Your task to perform on an android device: Show me popular videos on Youtube Image 0: 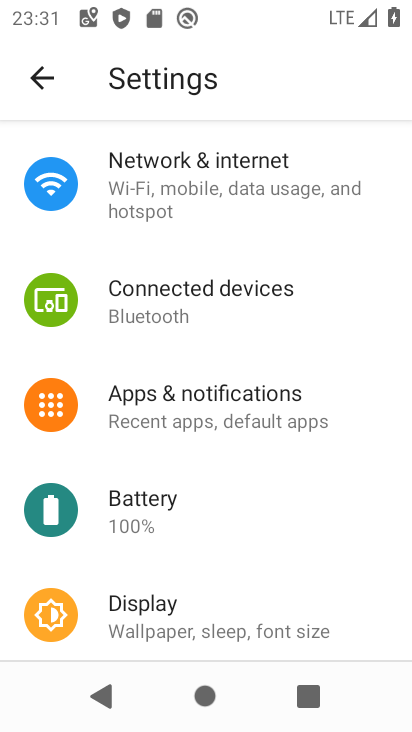
Step 0: press back button
Your task to perform on an android device: Show me popular videos on Youtube Image 1: 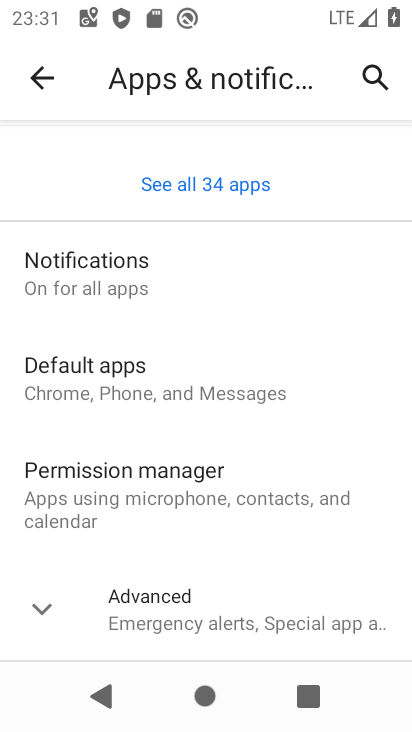
Step 1: press back button
Your task to perform on an android device: Show me popular videos on Youtube Image 2: 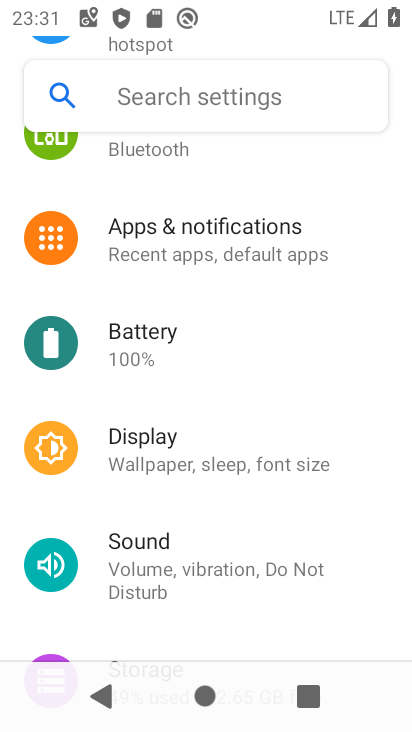
Step 2: press back button
Your task to perform on an android device: Show me popular videos on Youtube Image 3: 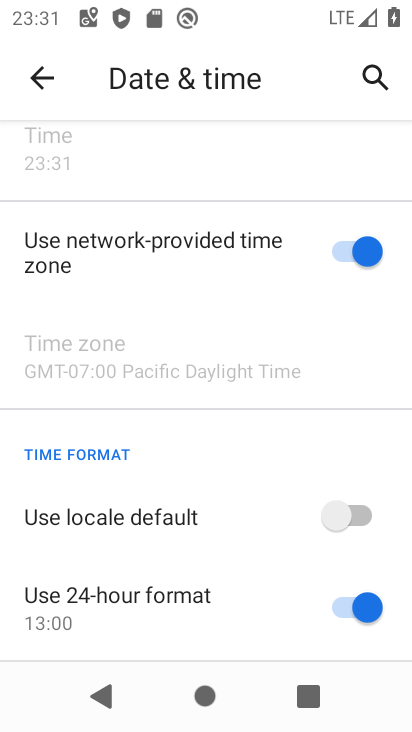
Step 3: press back button
Your task to perform on an android device: Show me popular videos on Youtube Image 4: 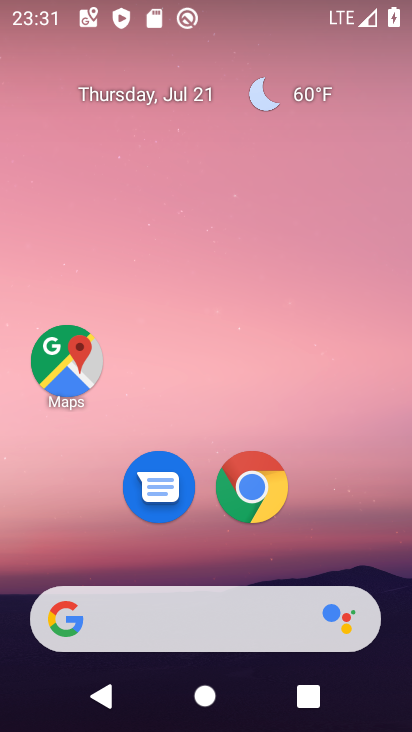
Step 4: drag from (105, 544) to (216, 9)
Your task to perform on an android device: Show me popular videos on Youtube Image 5: 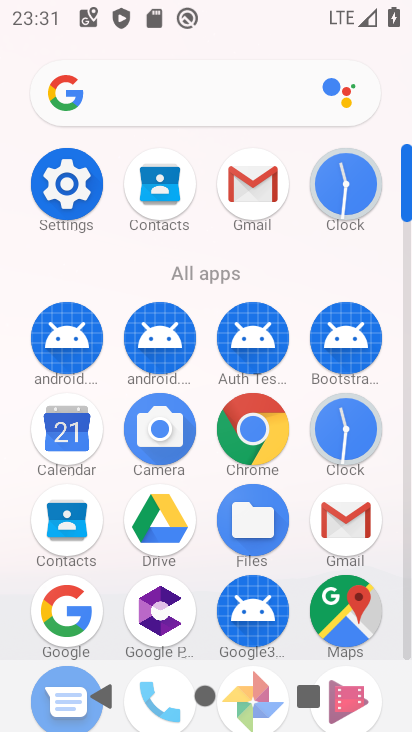
Step 5: drag from (233, 529) to (283, 83)
Your task to perform on an android device: Show me popular videos on Youtube Image 6: 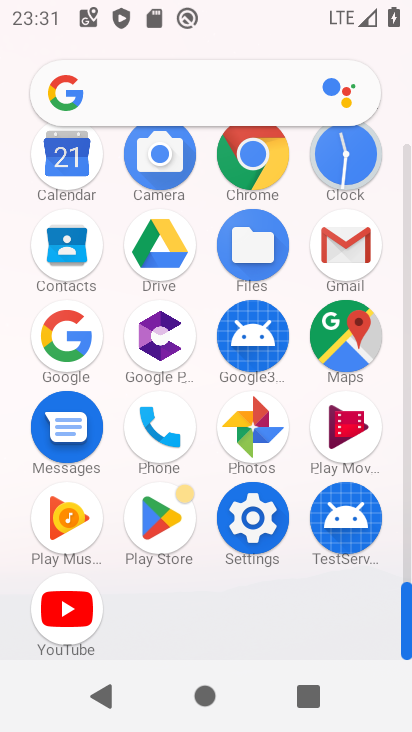
Step 6: click (68, 607)
Your task to perform on an android device: Show me popular videos on Youtube Image 7: 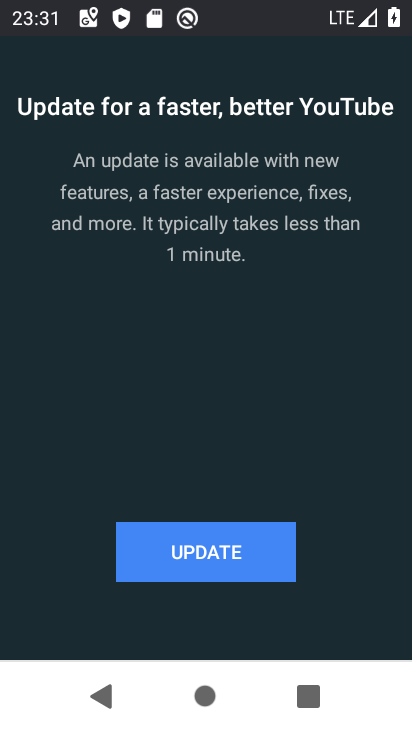
Step 7: click (163, 557)
Your task to perform on an android device: Show me popular videos on Youtube Image 8: 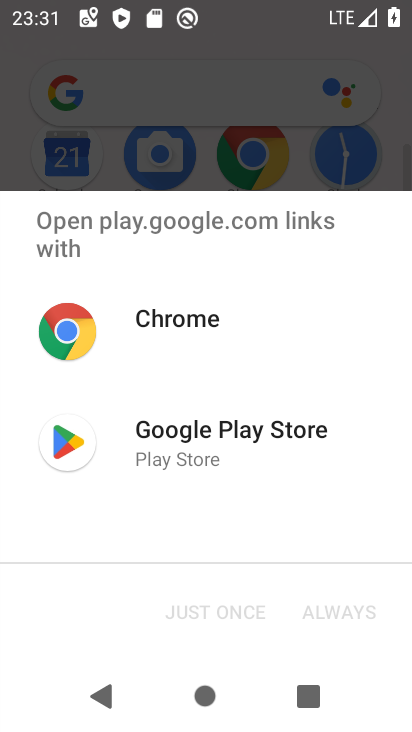
Step 8: click (220, 416)
Your task to perform on an android device: Show me popular videos on Youtube Image 9: 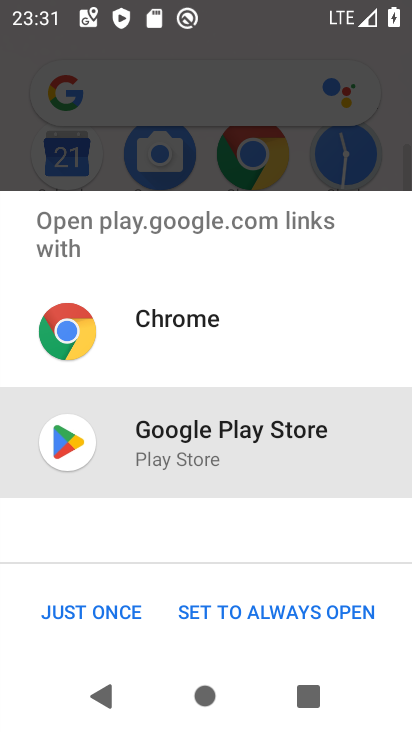
Step 9: click (105, 606)
Your task to perform on an android device: Show me popular videos on Youtube Image 10: 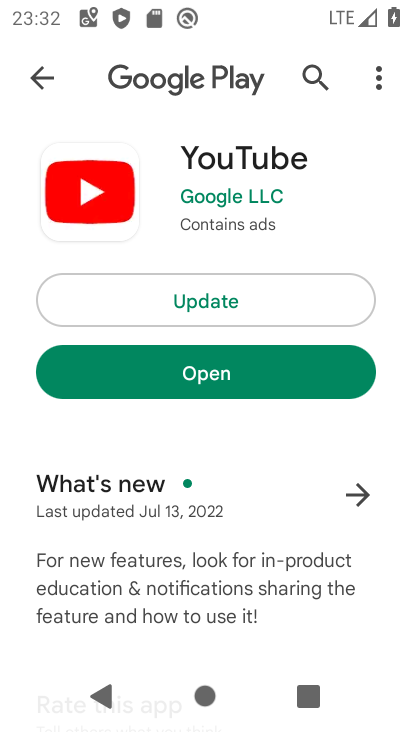
Step 10: click (225, 299)
Your task to perform on an android device: Show me popular videos on Youtube Image 11: 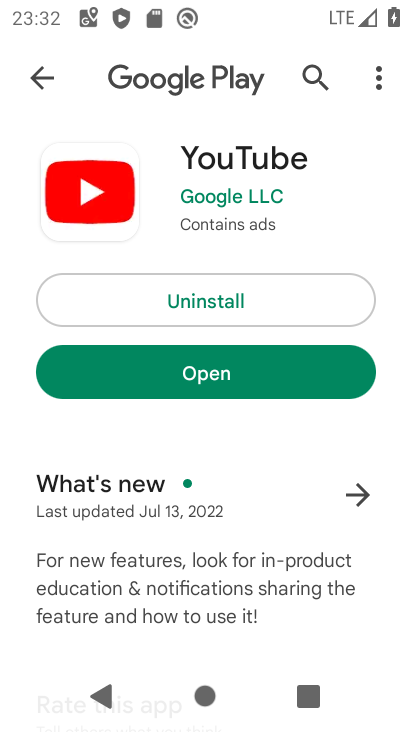
Step 11: click (218, 370)
Your task to perform on an android device: Show me popular videos on Youtube Image 12: 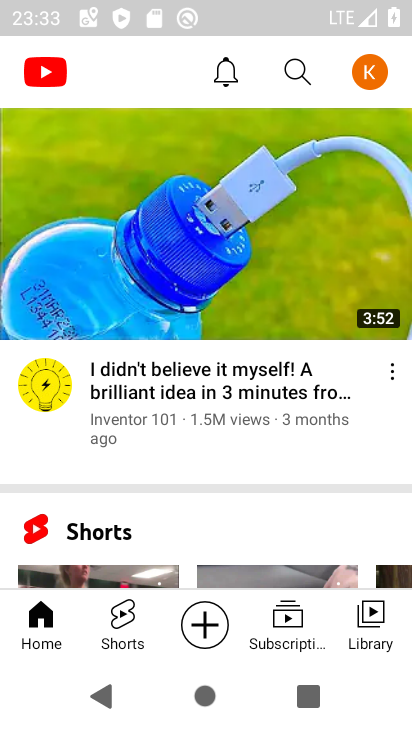
Step 12: drag from (92, 213) to (93, 592)
Your task to perform on an android device: Show me popular videos on Youtube Image 13: 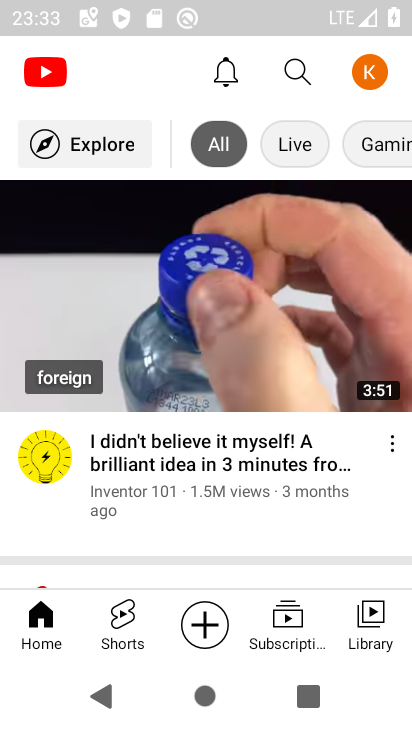
Step 13: click (59, 140)
Your task to perform on an android device: Show me popular videos on Youtube Image 14: 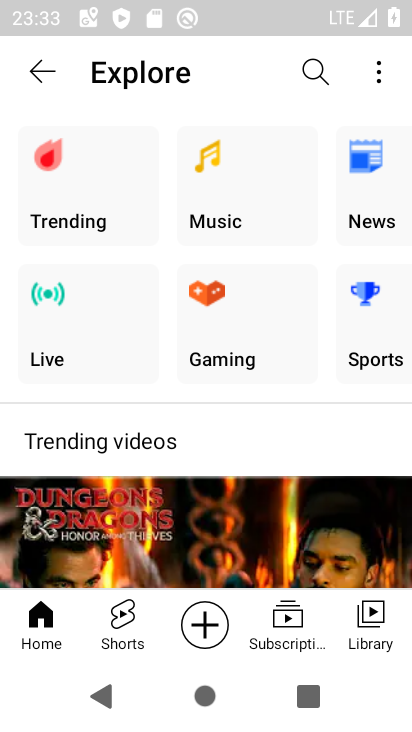
Step 14: drag from (121, 506) to (146, 180)
Your task to perform on an android device: Show me popular videos on Youtube Image 15: 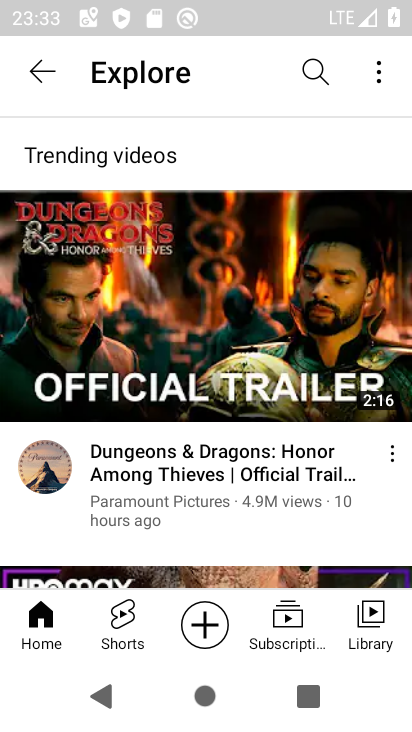
Step 15: click (97, 280)
Your task to perform on an android device: Show me popular videos on Youtube Image 16: 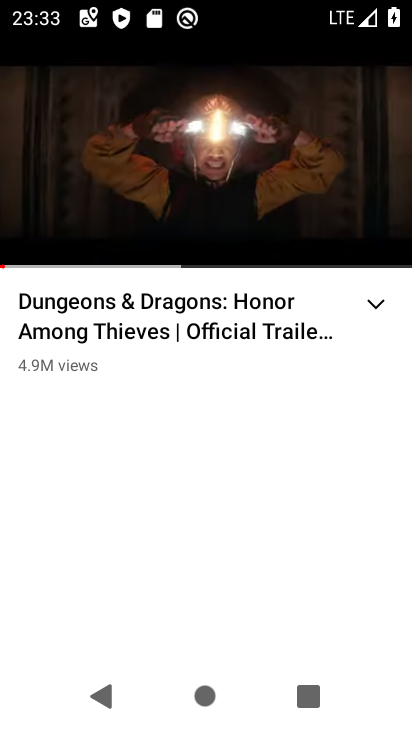
Step 16: click (198, 151)
Your task to perform on an android device: Show me popular videos on Youtube Image 17: 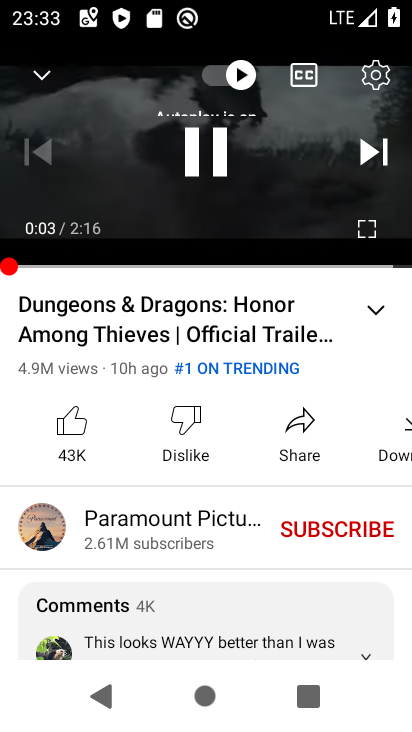
Step 17: click (199, 150)
Your task to perform on an android device: Show me popular videos on Youtube Image 18: 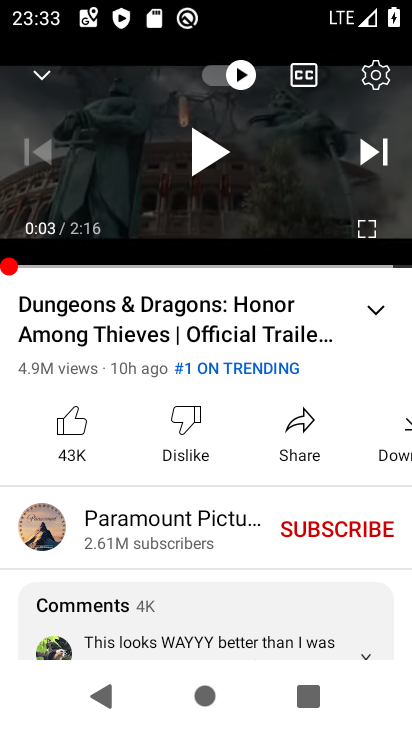
Step 18: task complete